Your task to perform on an android device: Do I have any events tomorrow? Image 0: 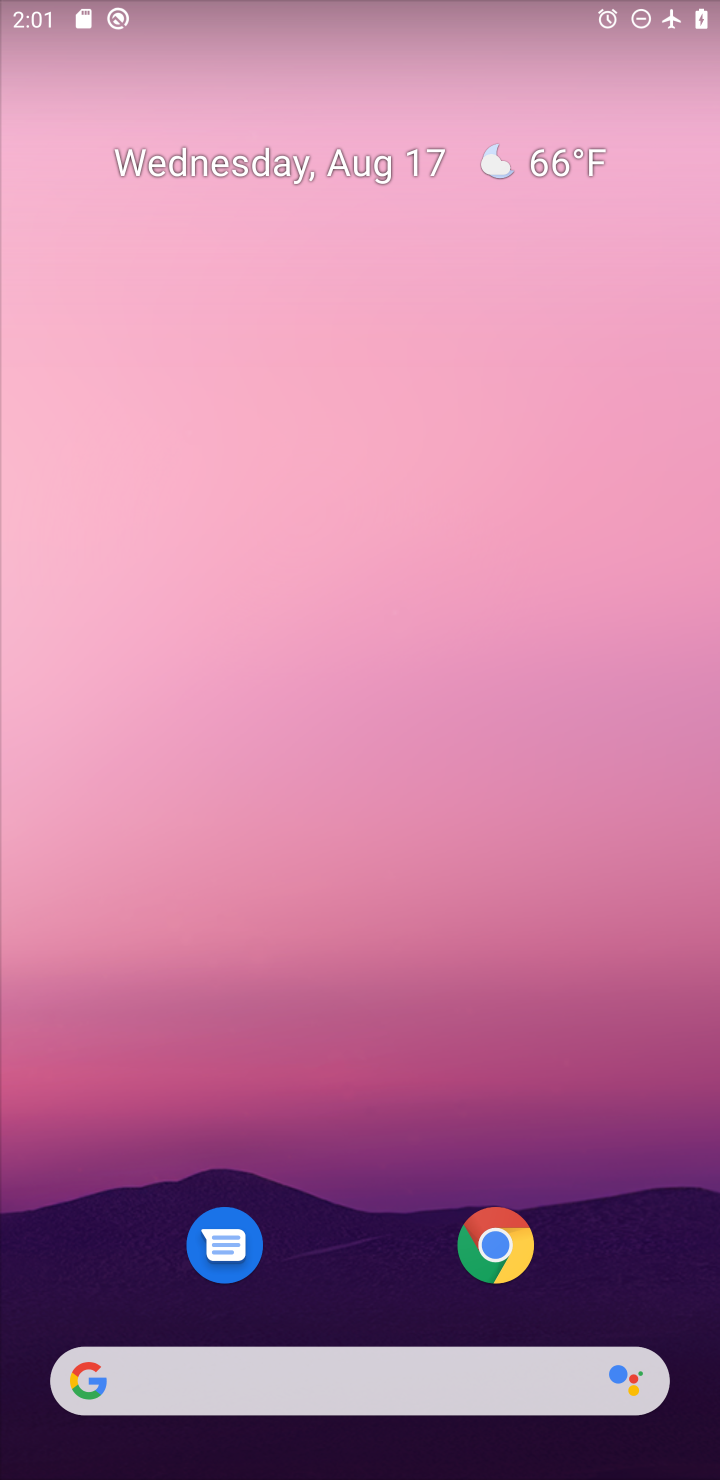
Step 0: drag from (353, 744) to (341, 143)
Your task to perform on an android device: Do I have any events tomorrow? Image 1: 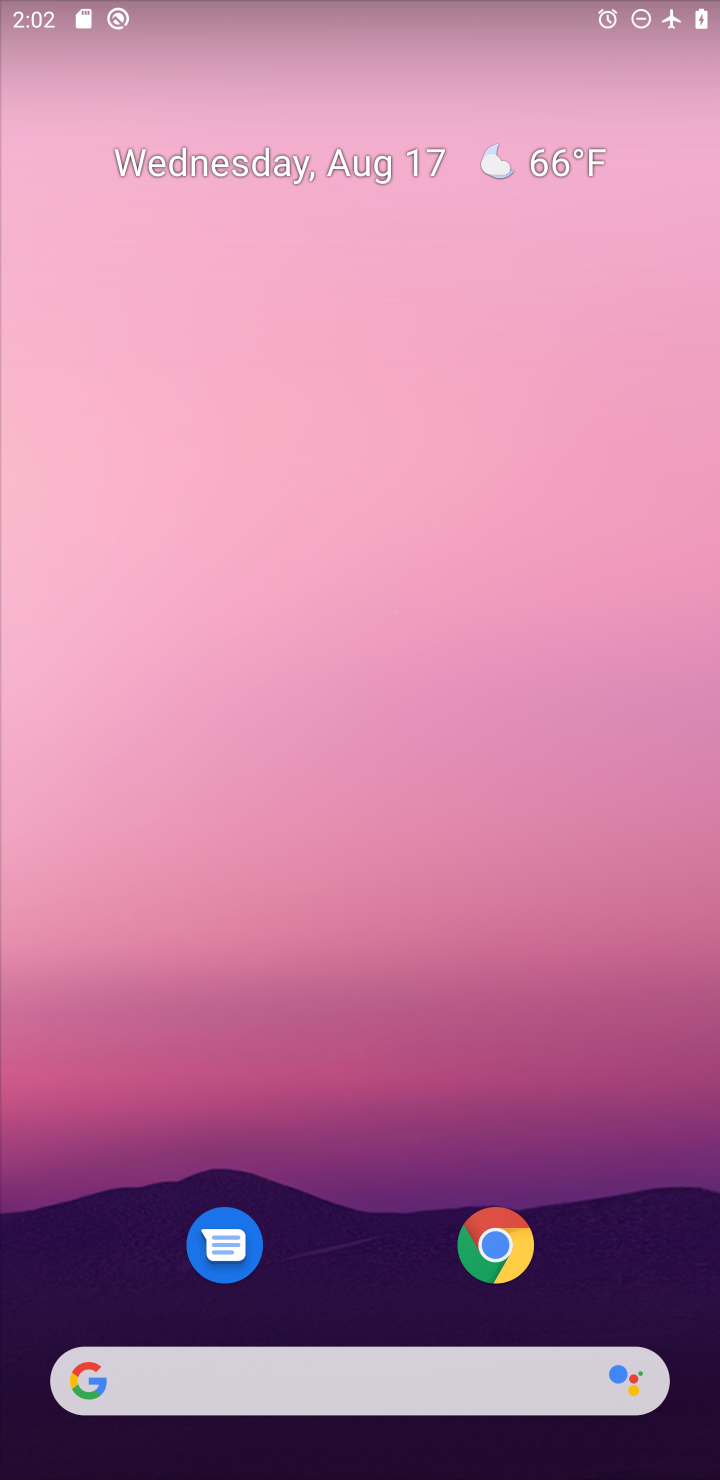
Step 1: click (310, 988)
Your task to perform on an android device: Do I have any events tomorrow? Image 2: 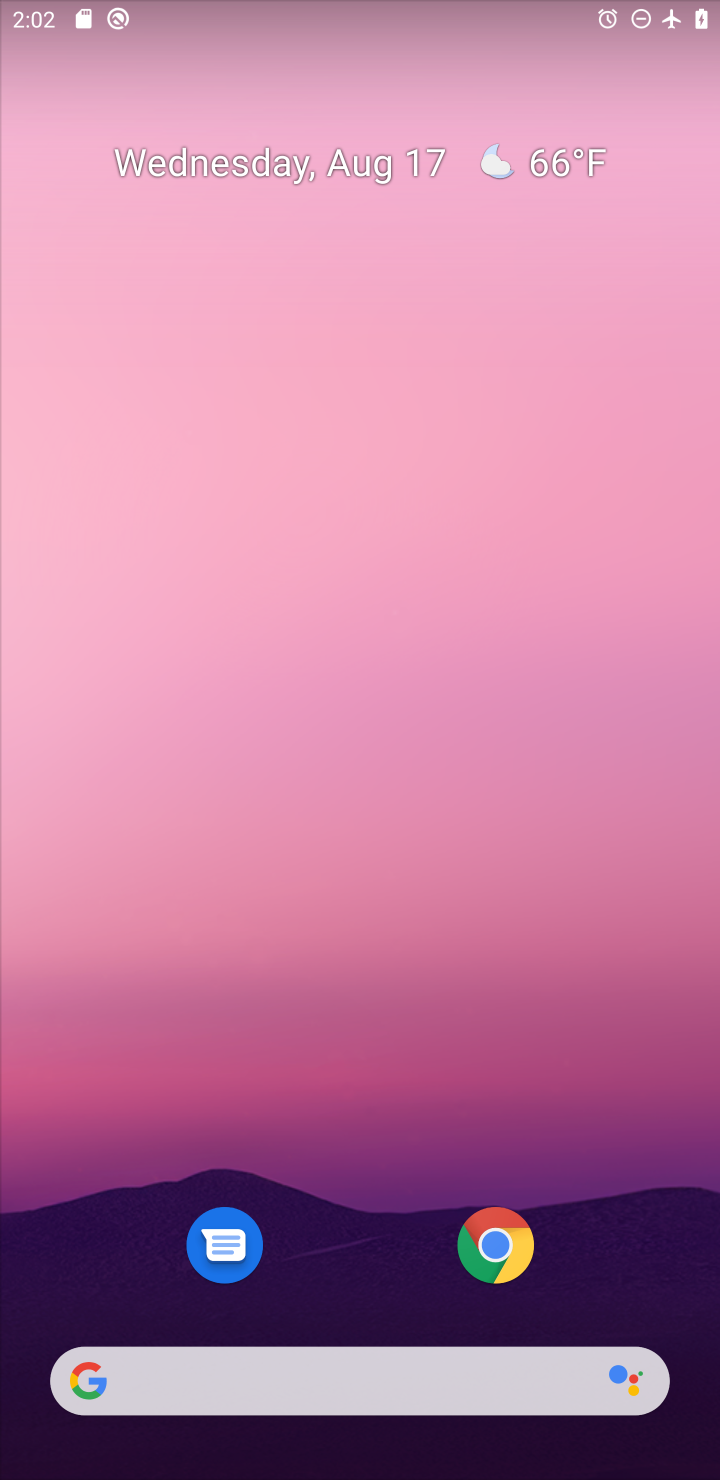
Step 2: click (249, 88)
Your task to perform on an android device: Do I have any events tomorrow? Image 3: 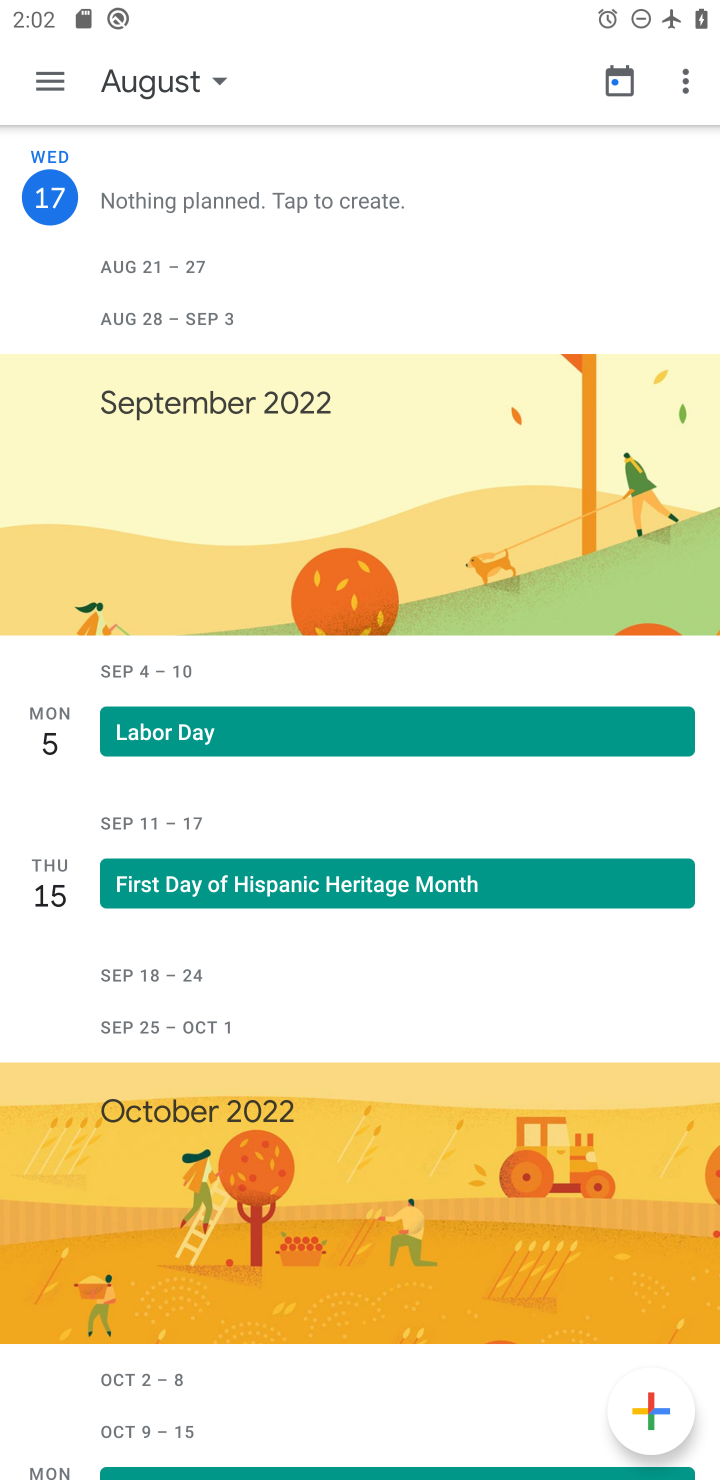
Step 3: click (217, 73)
Your task to perform on an android device: Do I have any events tomorrow? Image 4: 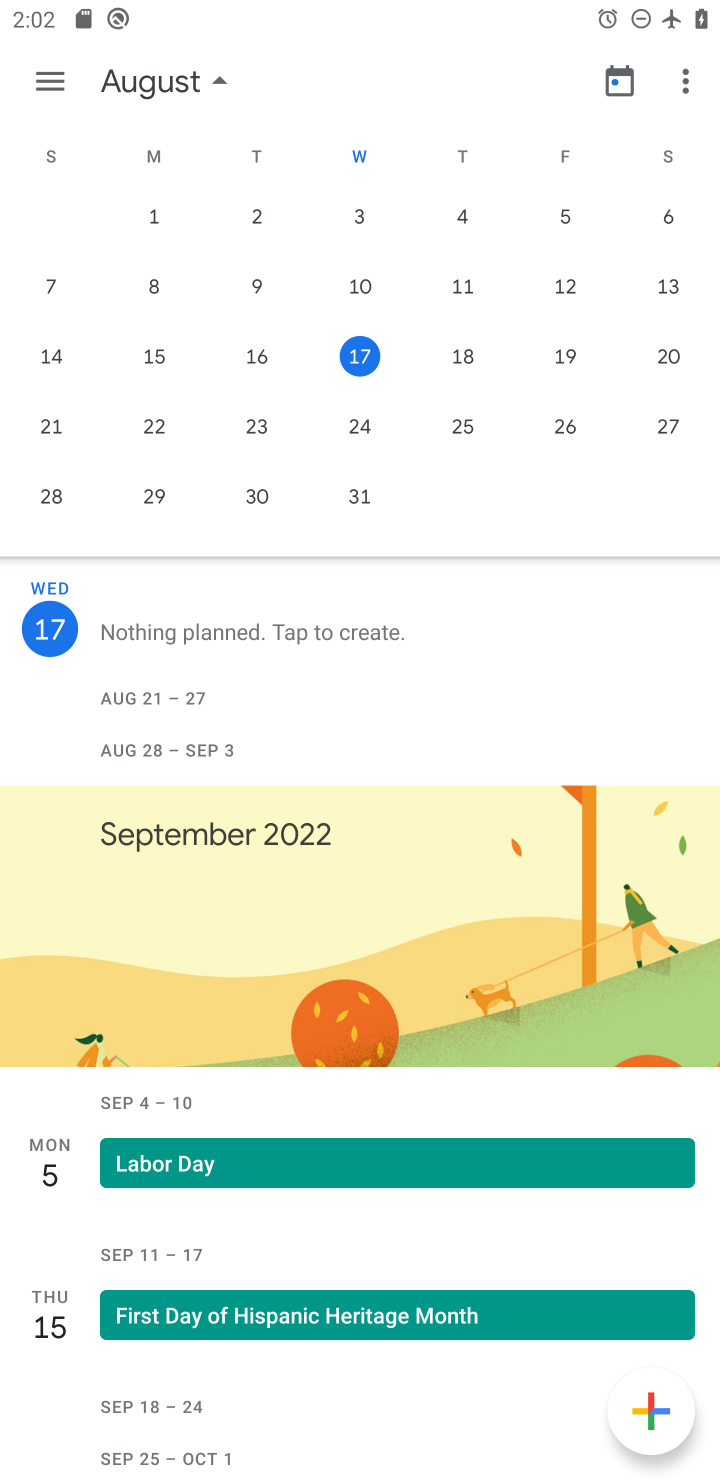
Step 4: click (459, 350)
Your task to perform on an android device: Do I have any events tomorrow? Image 5: 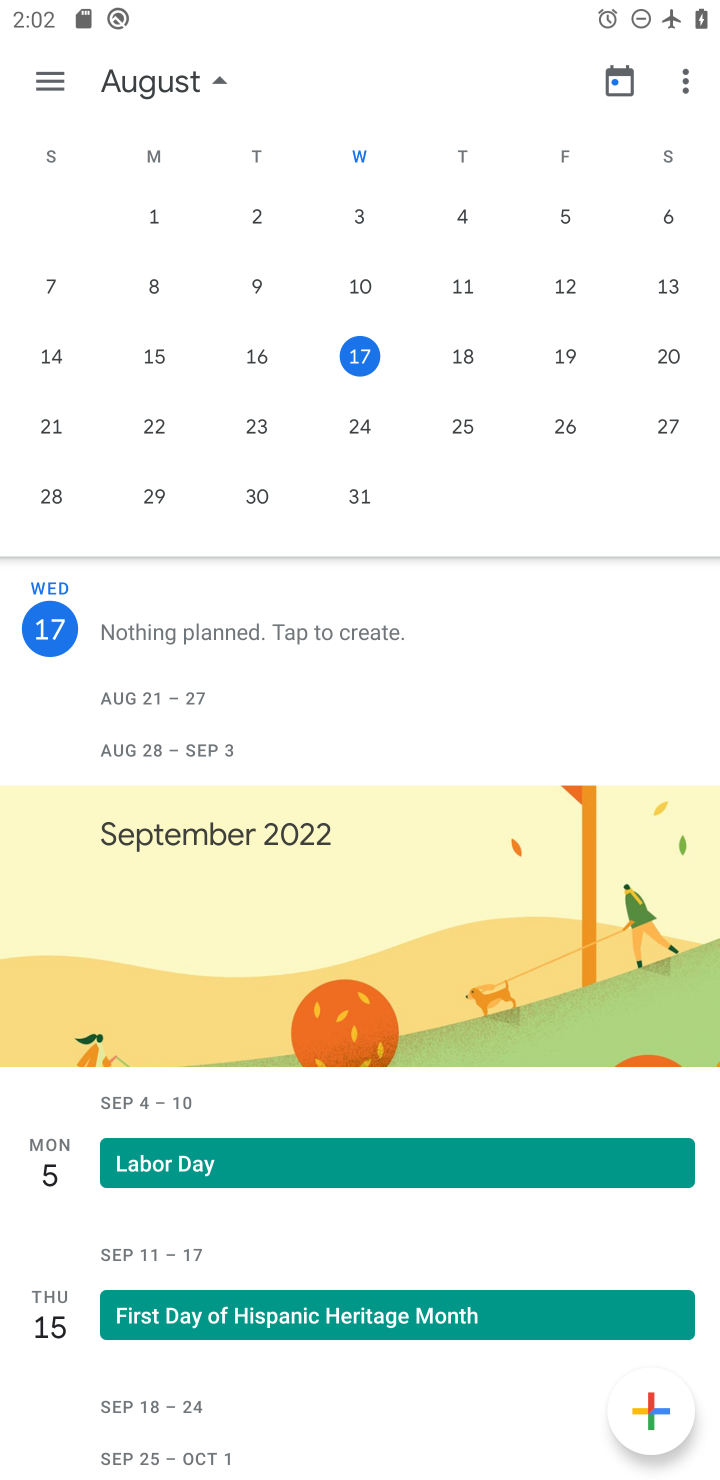
Step 5: click (365, 356)
Your task to perform on an android device: Do I have any events tomorrow? Image 6: 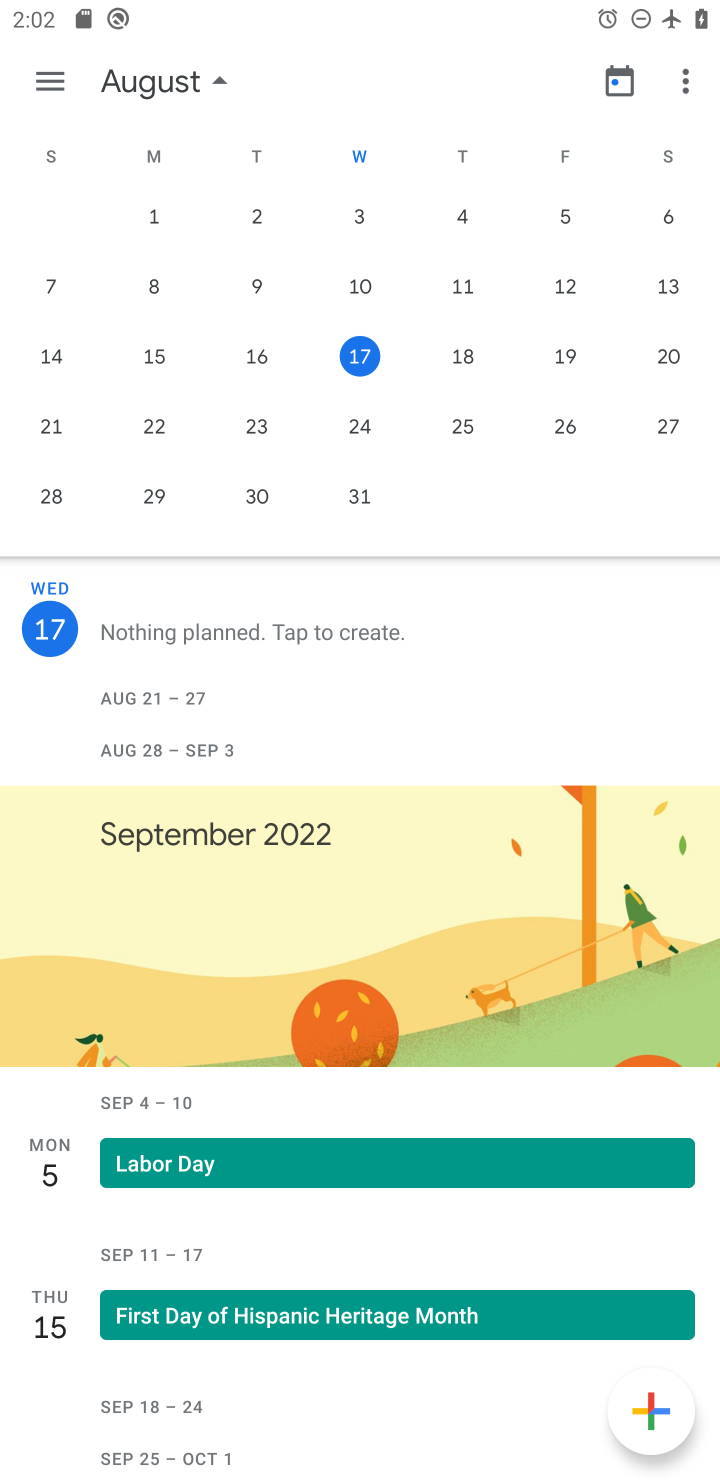
Step 6: click (468, 342)
Your task to perform on an android device: Do I have any events tomorrow? Image 7: 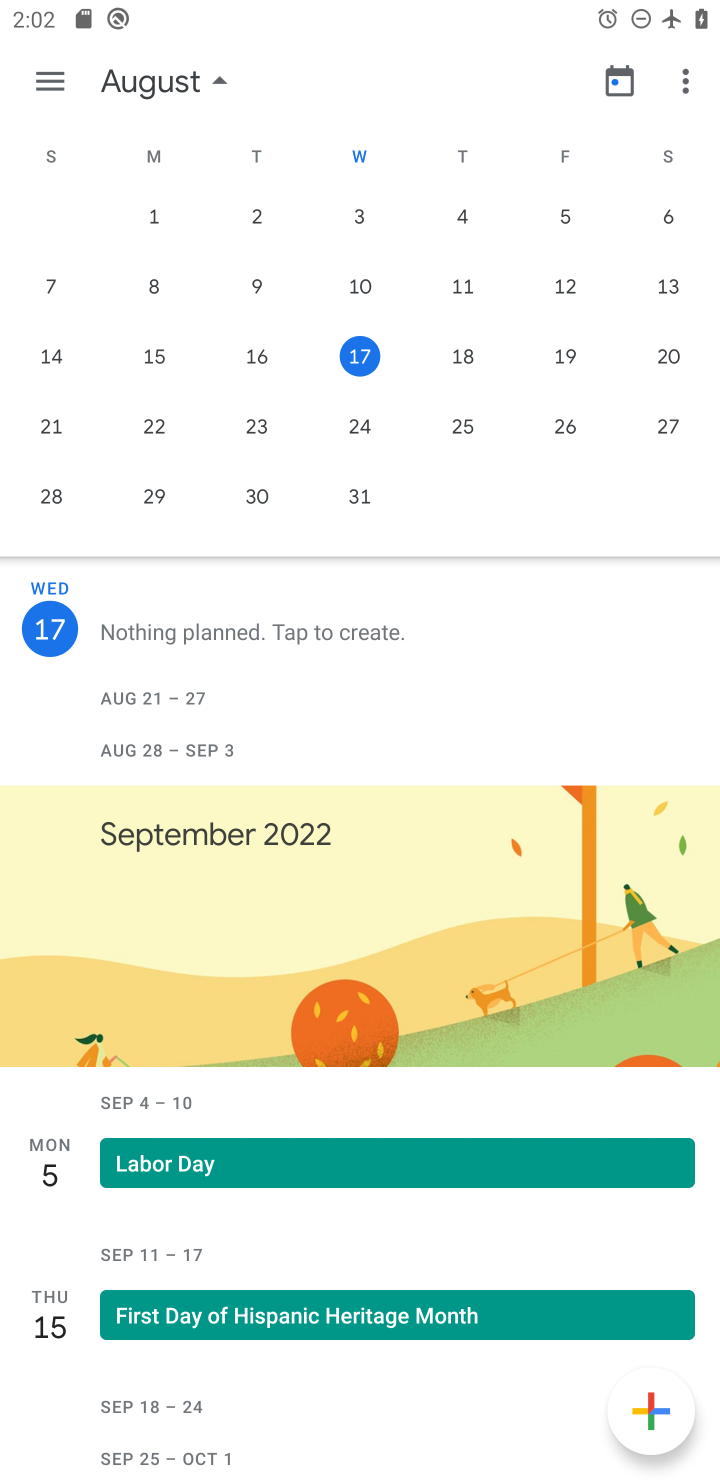
Step 7: click (461, 358)
Your task to perform on an android device: Do I have any events tomorrow? Image 8: 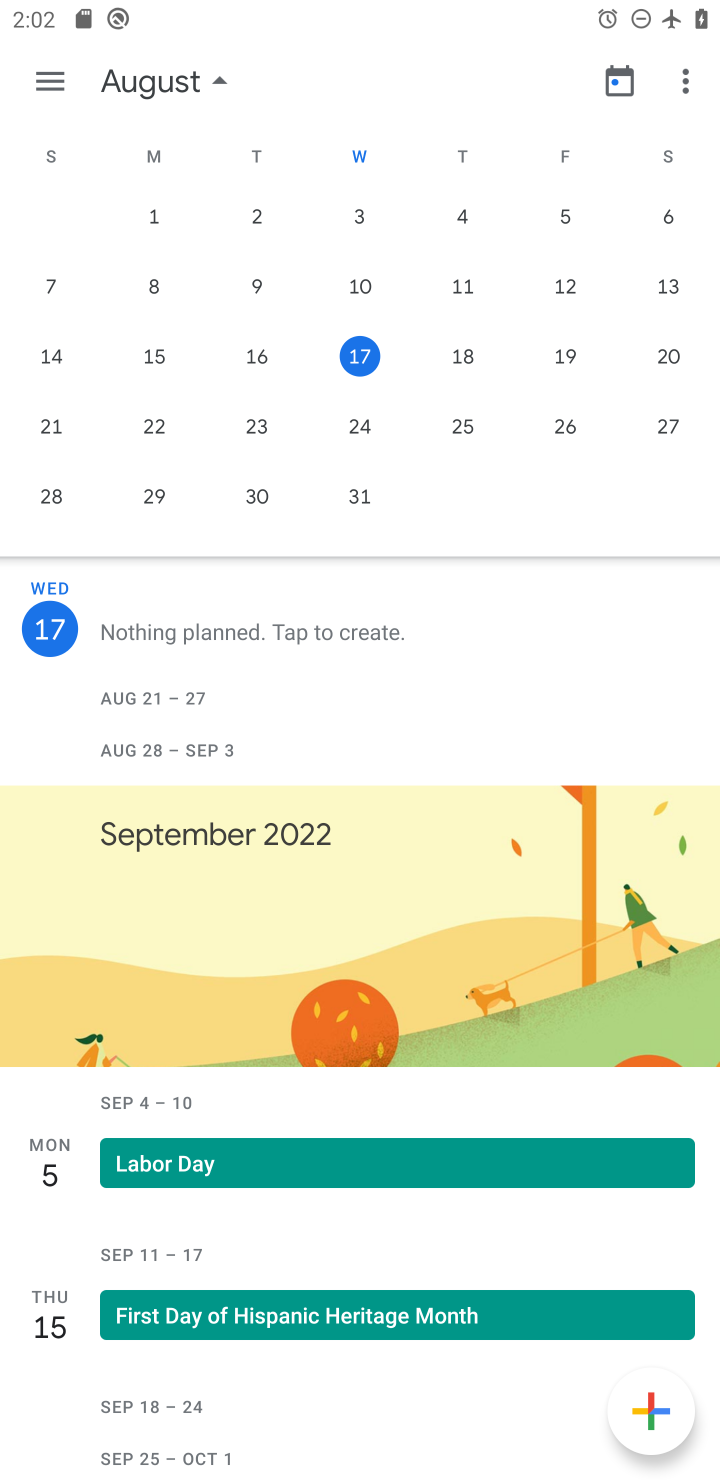
Step 8: click (461, 349)
Your task to perform on an android device: Do I have any events tomorrow? Image 9: 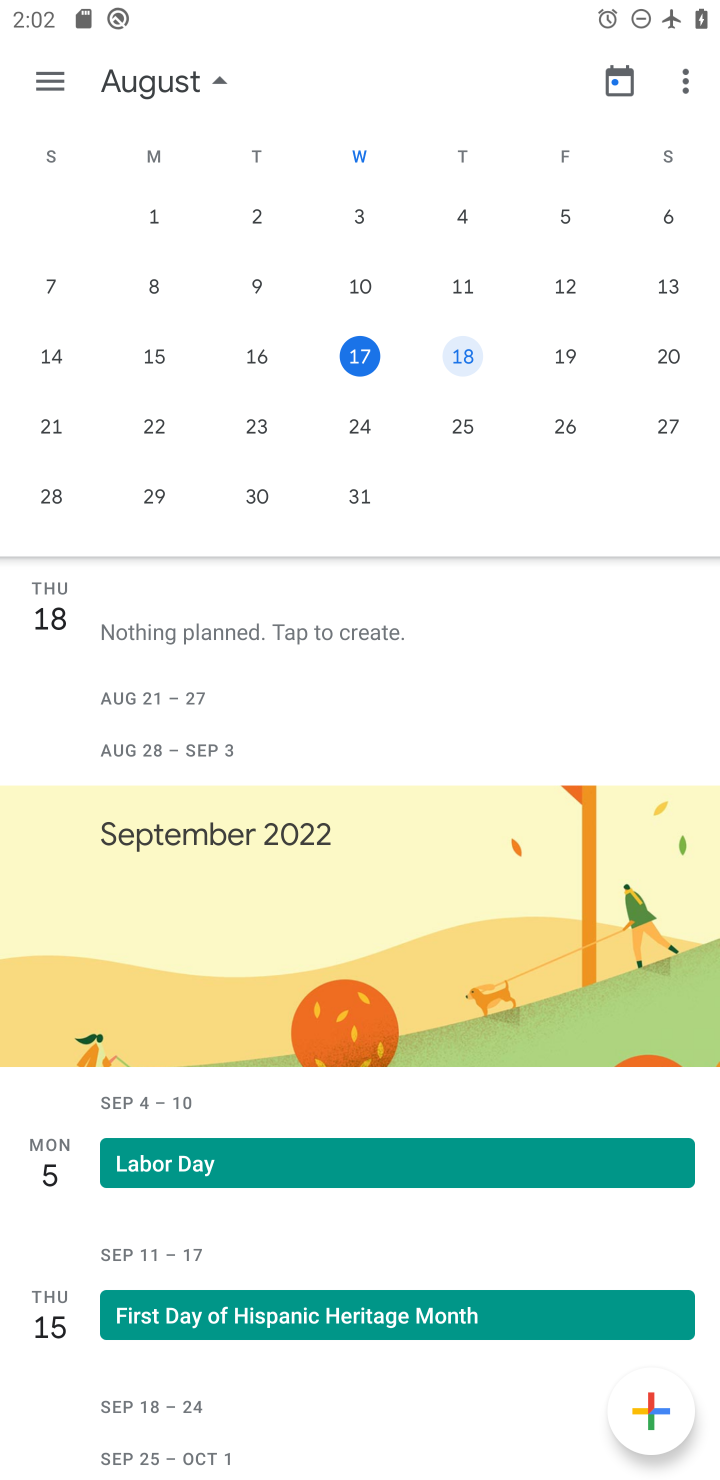
Step 9: click (460, 358)
Your task to perform on an android device: Do I have any events tomorrow? Image 10: 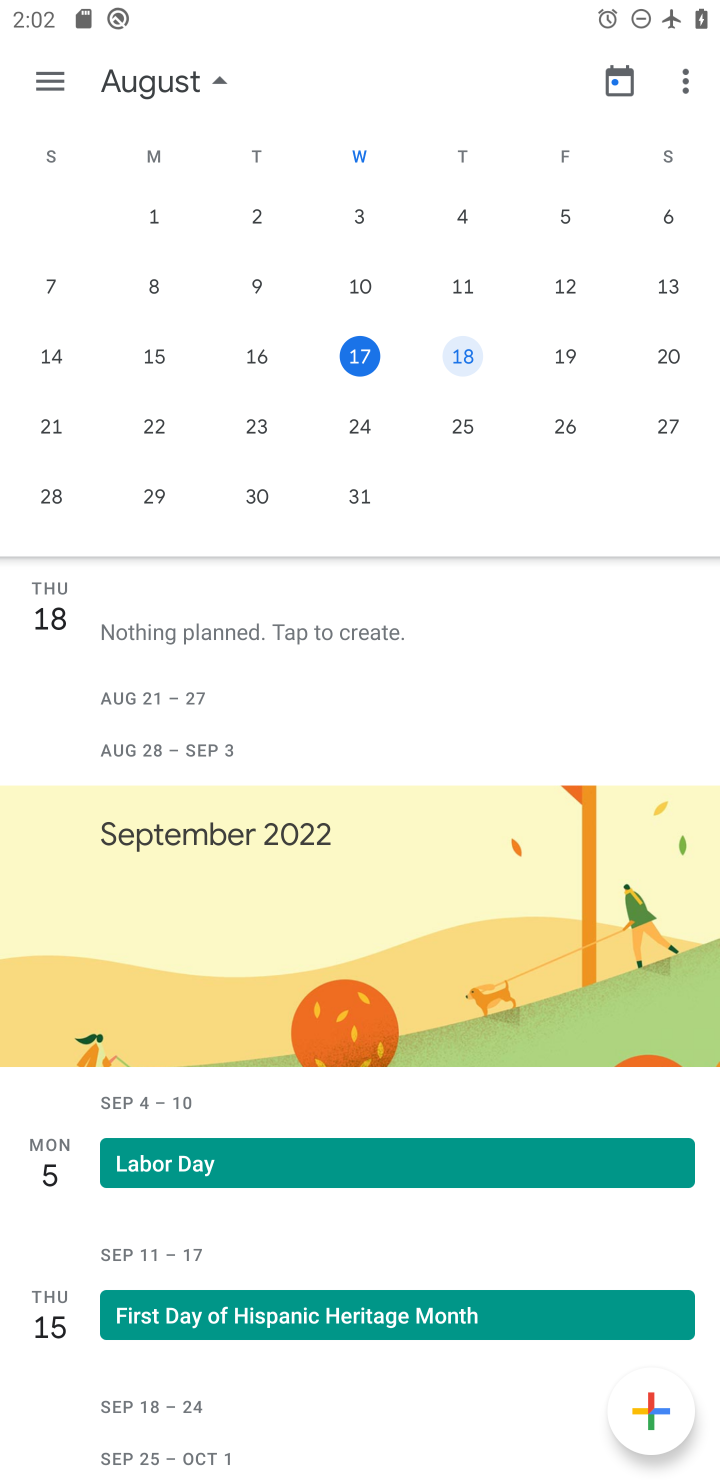
Step 10: click (46, 601)
Your task to perform on an android device: Do I have any events tomorrow? Image 11: 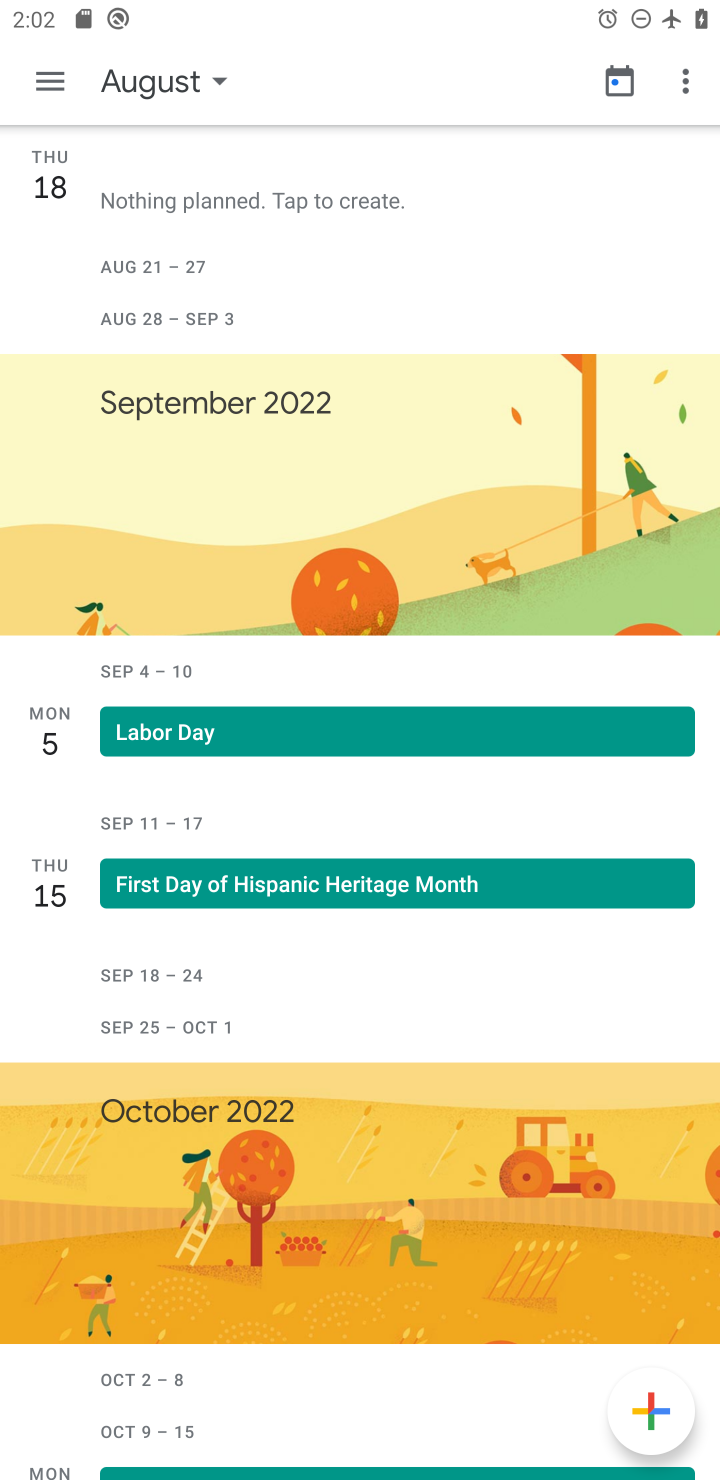
Step 11: task complete